Your task to perform on an android device: turn off javascript in the chrome app Image 0: 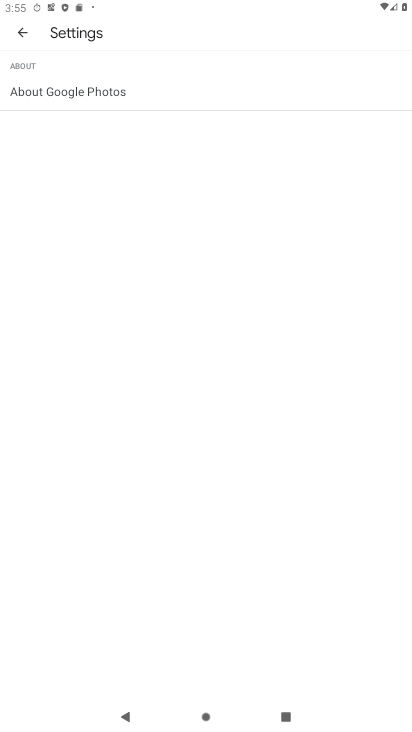
Step 0: press home button
Your task to perform on an android device: turn off javascript in the chrome app Image 1: 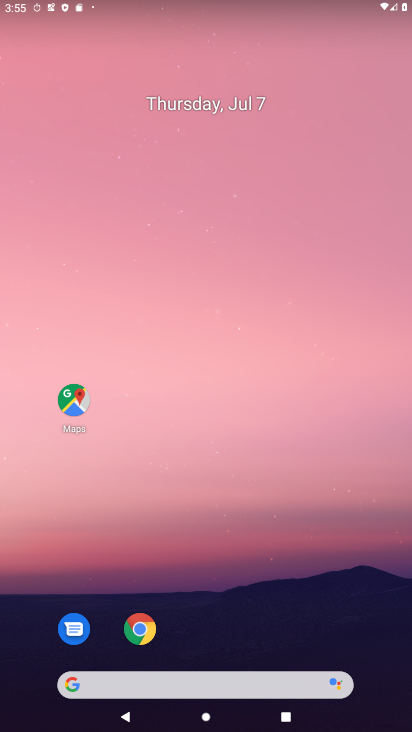
Step 1: drag from (186, 577) to (264, 7)
Your task to perform on an android device: turn off javascript in the chrome app Image 2: 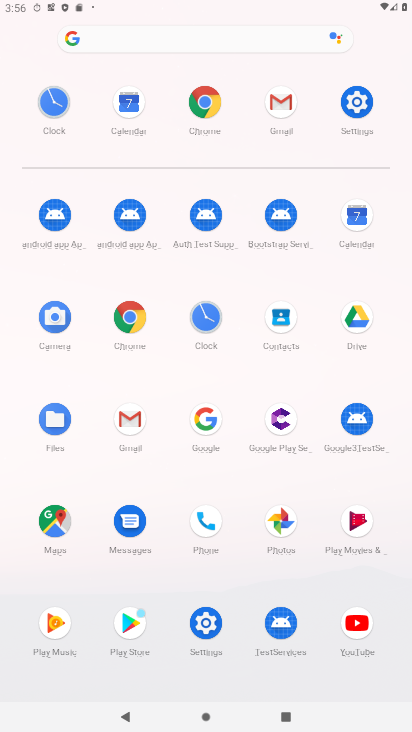
Step 2: click (201, 118)
Your task to perform on an android device: turn off javascript in the chrome app Image 3: 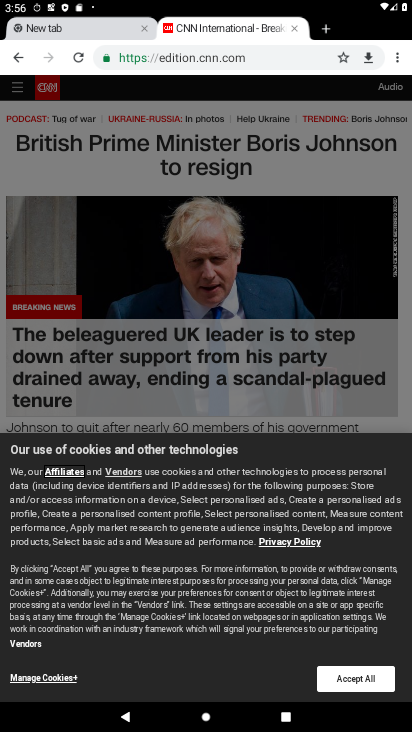
Step 3: click (398, 58)
Your task to perform on an android device: turn off javascript in the chrome app Image 4: 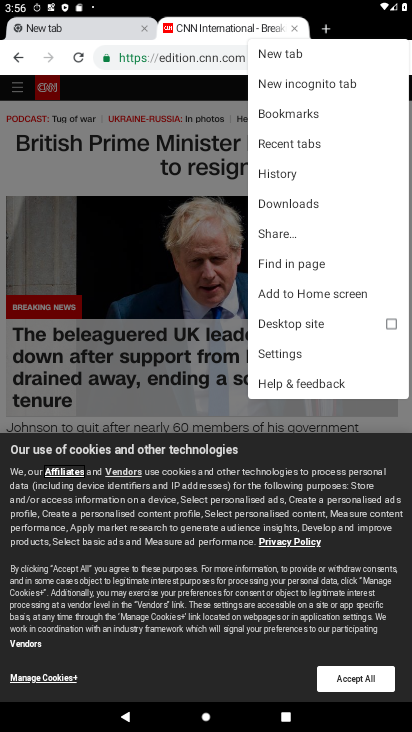
Step 4: click (289, 355)
Your task to perform on an android device: turn off javascript in the chrome app Image 5: 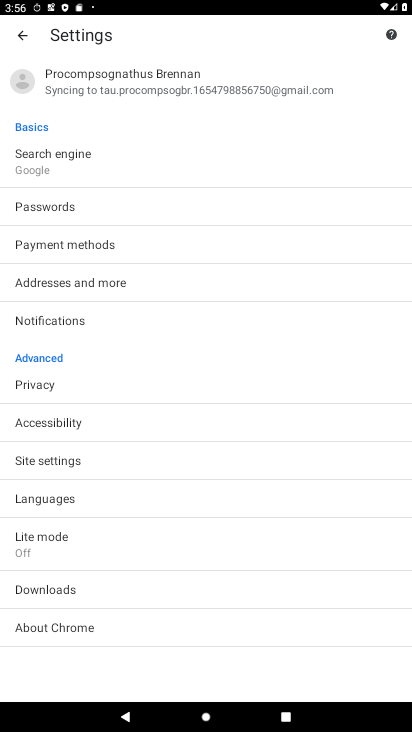
Step 5: click (65, 457)
Your task to perform on an android device: turn off javascript in the chrome app Image 6: 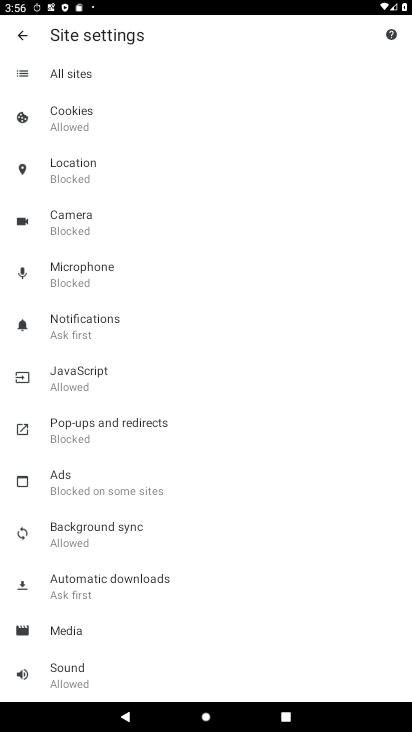
Step 6: click (87, 395)
Your task to perform on an android device: turn off javascript in the chrome app Image 7: 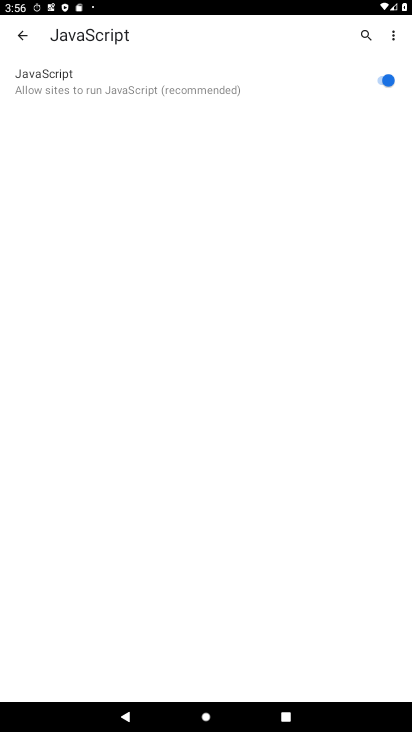
Step 7: click (379, 82)
Your task to perform on an android device: turn off javascript in the chrome app Image 8: 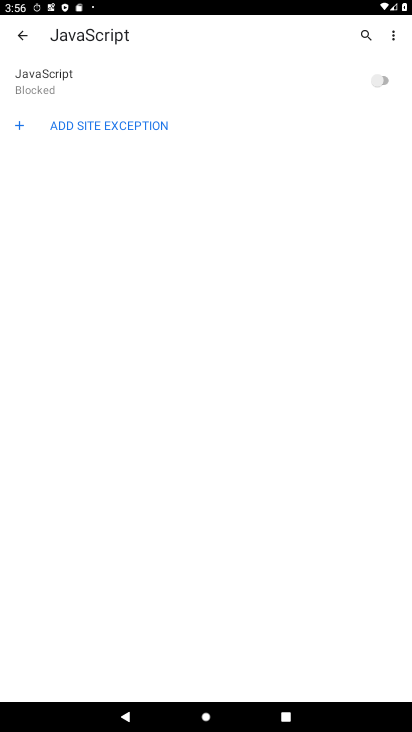
Step 8: task complete